Your task to perform on an android device: empty trash in the gmail app Image 0: 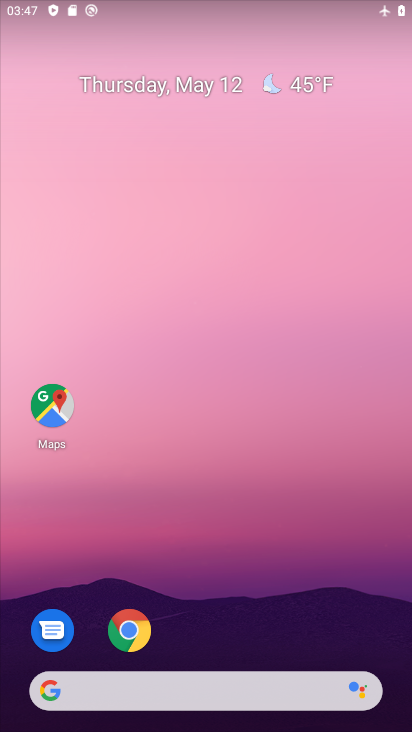
Step 0: drag from (233, 632) to (278, 30)
Your task to perform on an android device: empty trash in the gmail app Image 1: 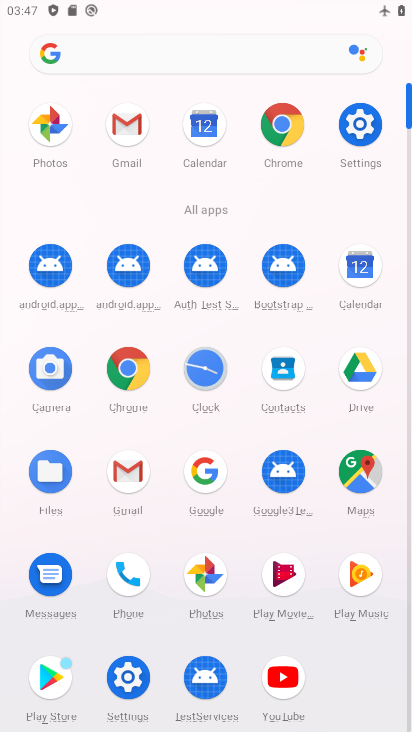
Step 1: click (120, 472)
Your task to perform on an android device: empty trash in the gmail app Image 2: 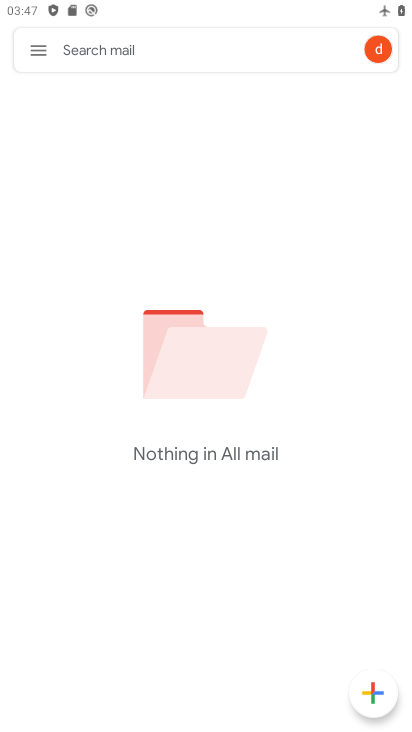
Step 2: click (41, 50)
Your task to perform on an android device: empty trash in the gmail app Image 3: 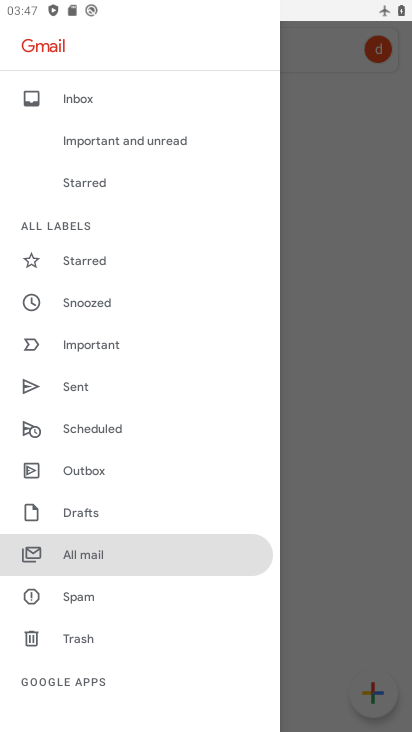
Step 3: click (105, 640)
Your task to perform on an android device: empty trash in the gmail app Image 4: 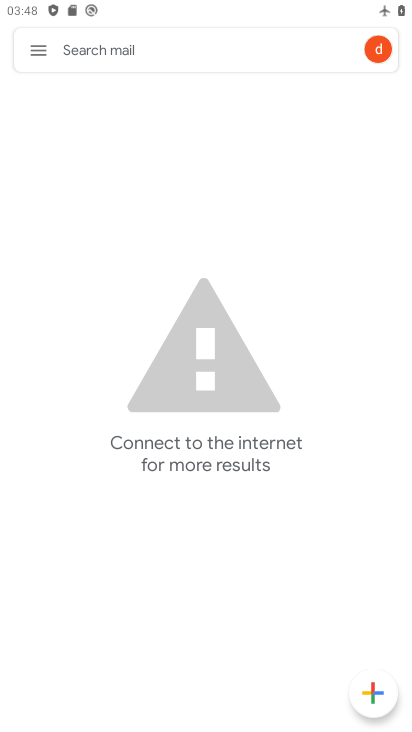
Step 4: task complete